Your task to perform on an android device: Do I have any events this weekend? Image 0: 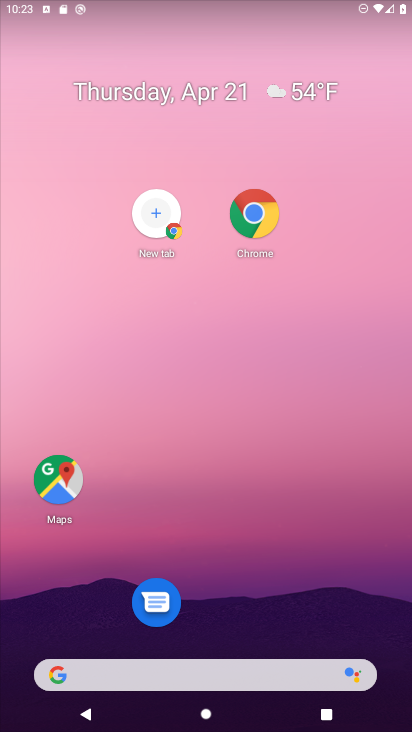
Step 0: click (166, 89)
Your task to perform on an android device: Do I have any events this weekend? Image 1: 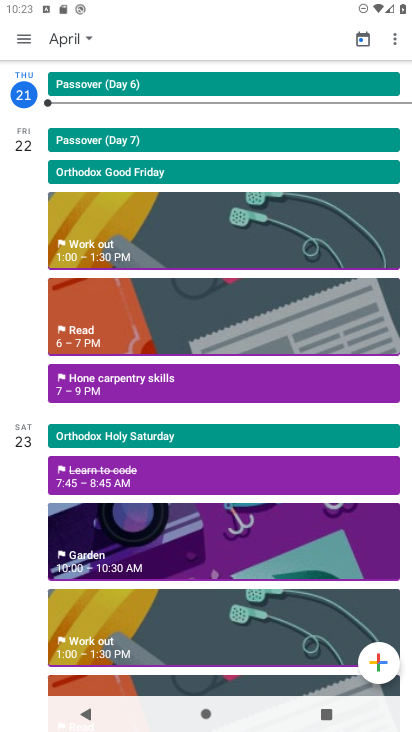
Step 1: click (125, 472)
Your task to perform on an android device: Do I have any events this weekend? Image 2: 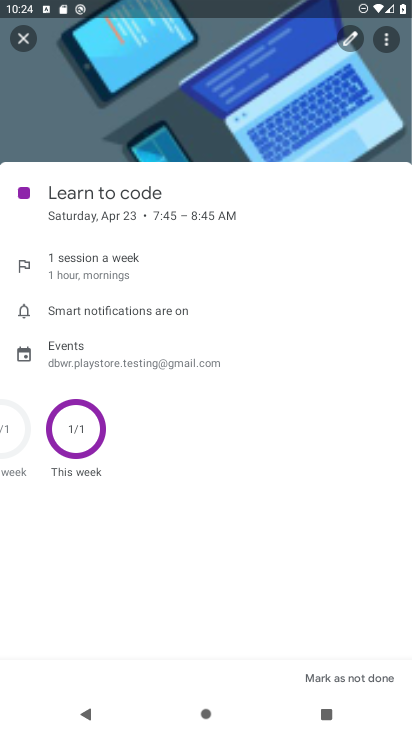
Step 2: task complete